Your task to perform on an android device: Open battery settings Image 0: 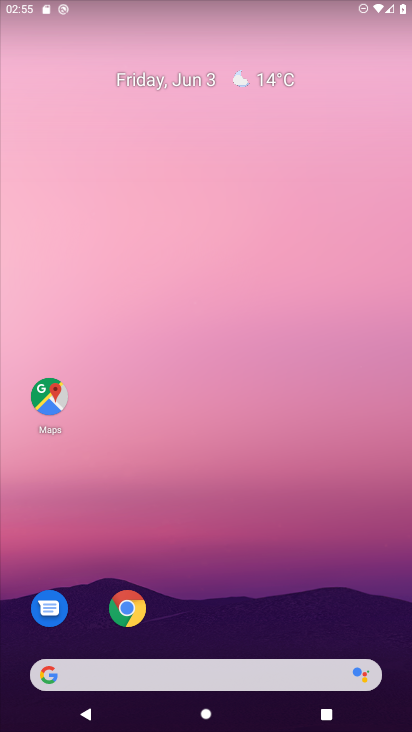
Step 0: drag from (264, 357) to (249, 141)
Your task to perform on an android device: Open battery settings Image 1: 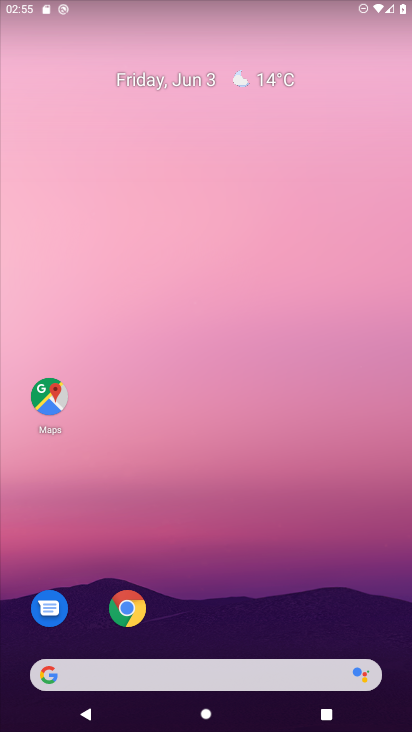
Step 1: drag from (287, 544) to (245, 134)
Your task to perform on an android device: Open battery settings Image 2: 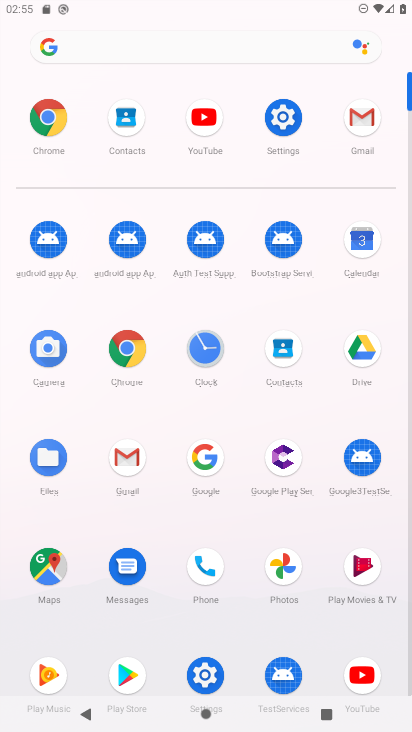
Step 2: click (282, 112)
Your task to perform on an android device: Open battery settings Image 3: 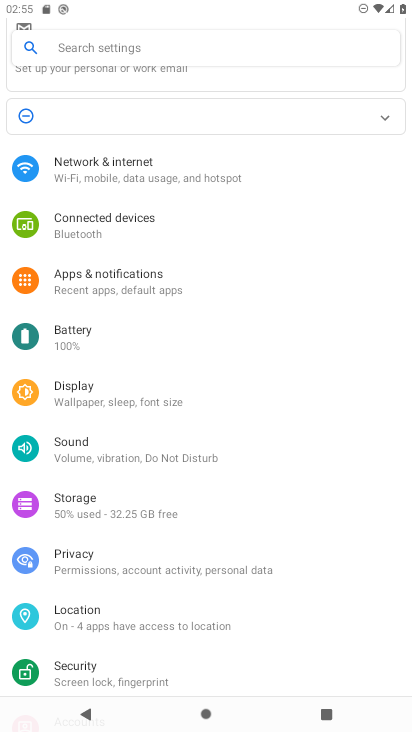
Step 3: click (81, 342)
Your task to perform on an android device: Open battery settings Image 4: 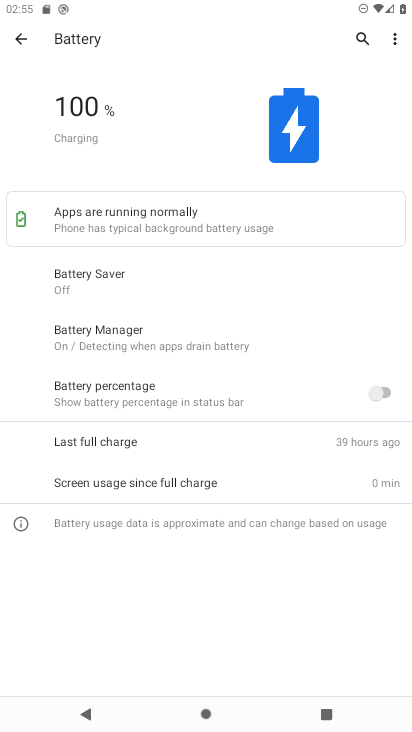
Step 4: task complete